Your task to perform on an android device: toggle notifications settings in the gmail app Image 0: 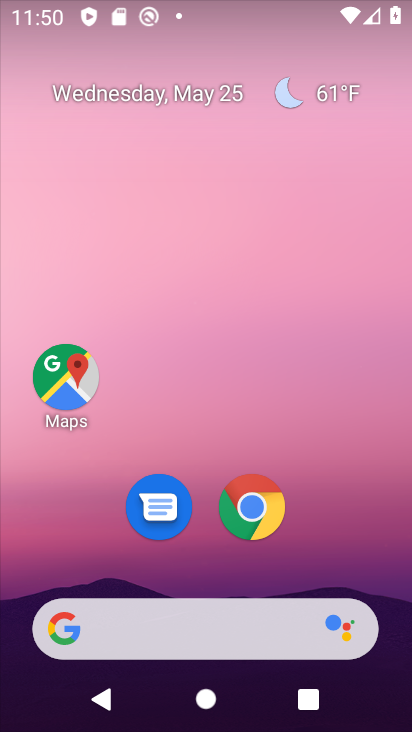
Step 0: drag from (383, 543) to (291, 10)
Your task to perform on an android device: toggle notifications settings in the gmail app Image 1: 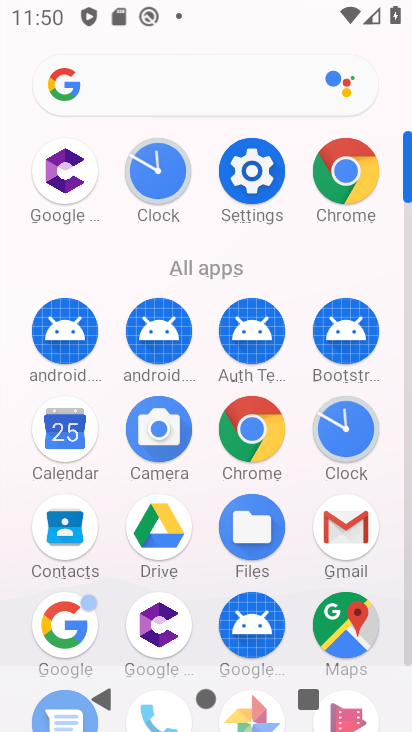
Step 1: click (348, 544)
Your task to perform on an android device: toggle notifications settings in the gmail app Image 2: 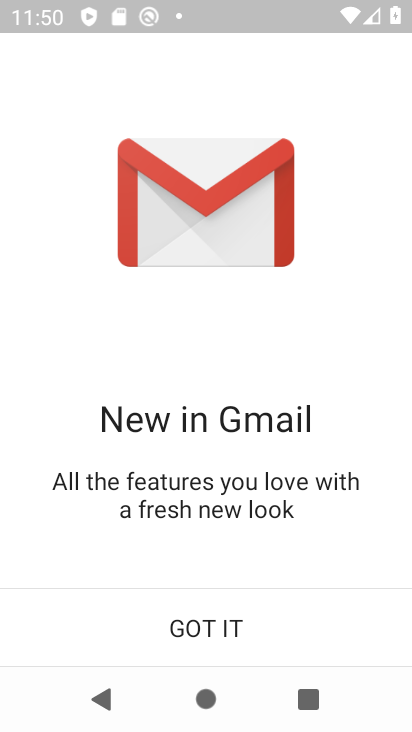
Step 2: click (209, 590)
Your task to perform on an android device: toggle notifications settings in the gmail app Image 3: 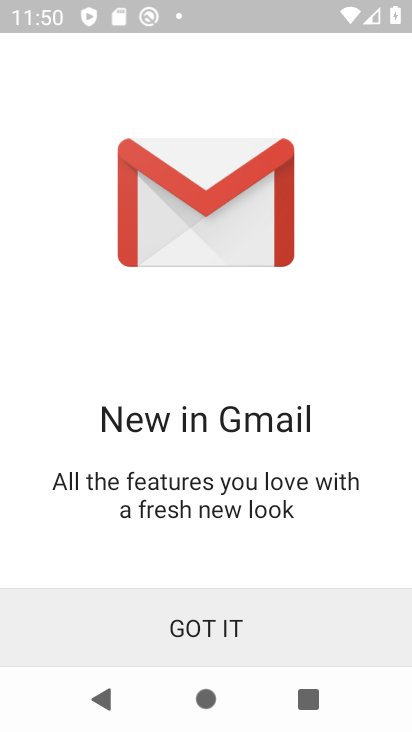
Step 3: click (200, 625)
Your task to perform on an android device: toggle notifications settings in the gmail app Image 4: 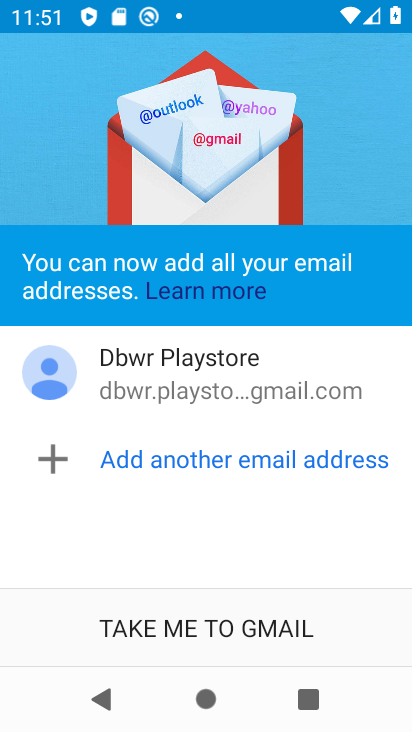
Step 4: click (138, 625)
Your task to perform on an android device: toggle notifications settings in the gmail app Image 5: 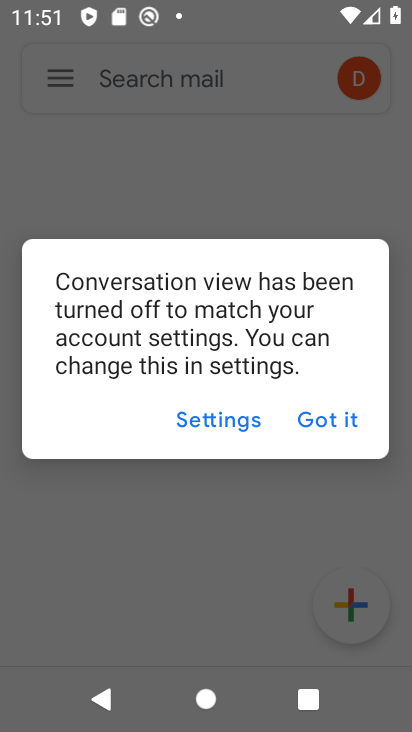
Step 5: click (321, 429)
Your task to perform on an android device: toggle notifications settings in the gmail app Image 6: 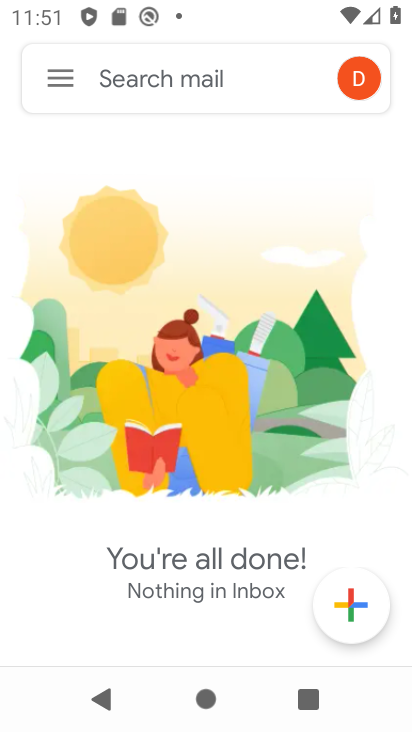
Step 6: task complete